Your task to perform on an android device: Open CNN.com Image 0: 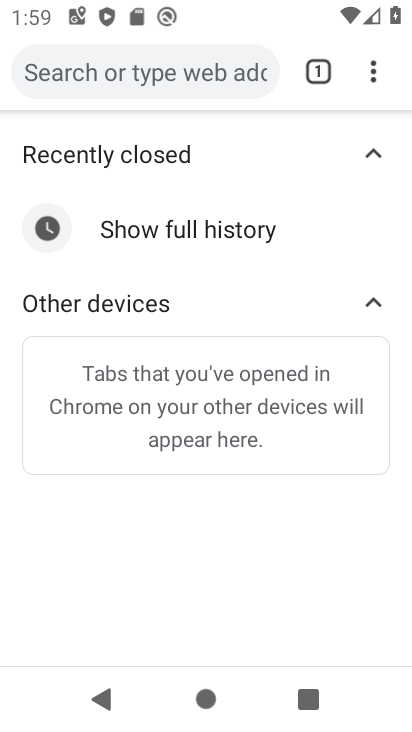
Step 0: click (178, 78)
Your task to perform on an android device: Open CNN.com Image 1: 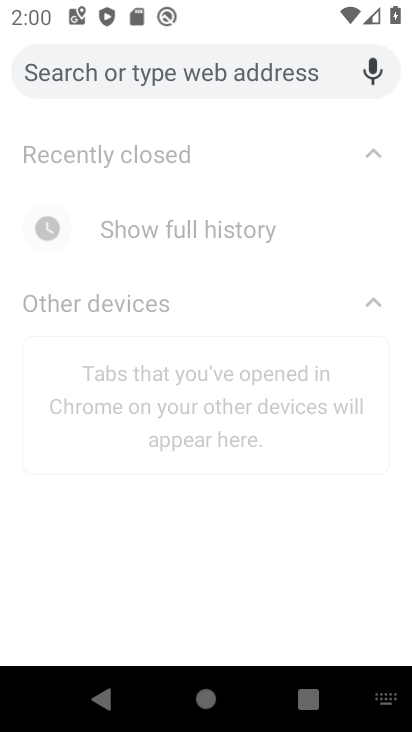
Step 1: type "CNN.com"
Your task to perform on an android device: Open CNN.com Image 2: 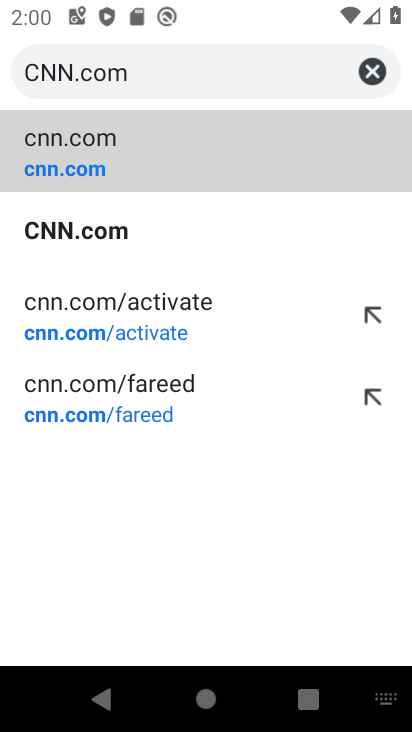
Step 2: click (53, 158)
Your task to perform on an android device: Open CNN.com Image 3: 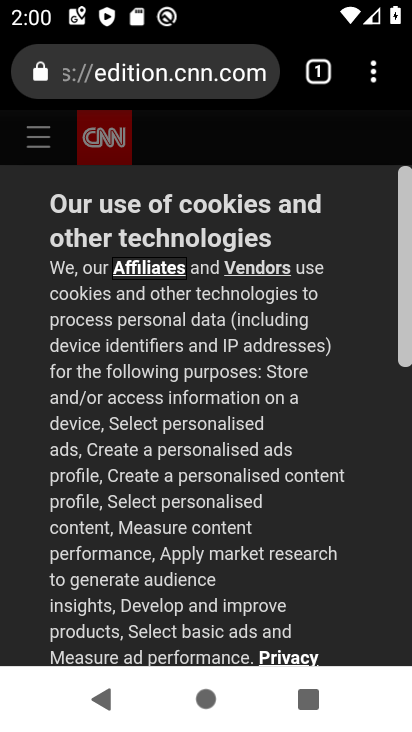
Step 3: task complete